Your task to perform on an android device: refresh tabs in the chrome app Image 0: 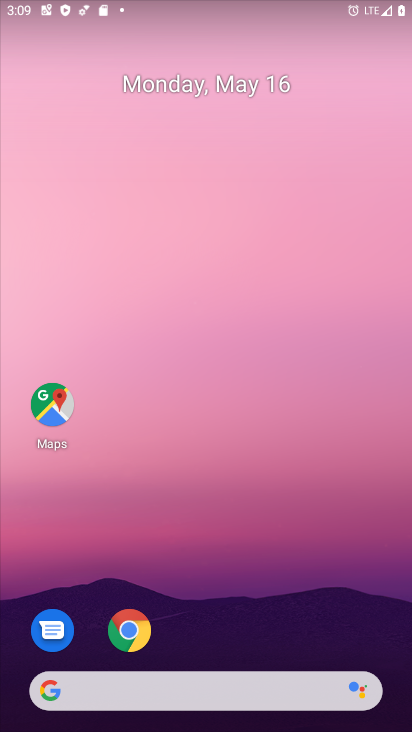
Step 0: click (127, 629)
Your task to perform on an android device: refresh tabs in the chrome app Image 1: 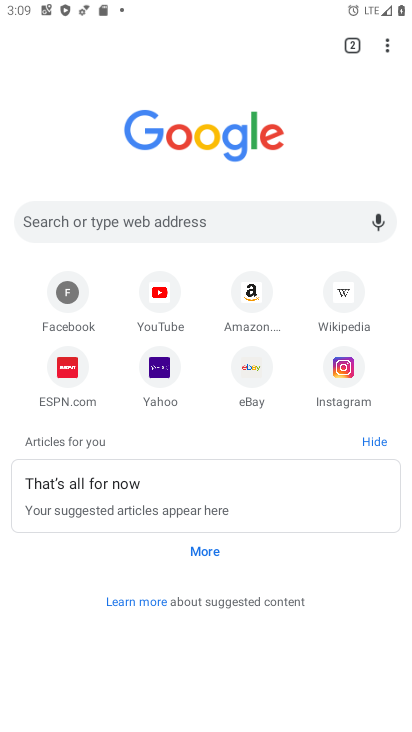
Step 1: click (385, 44)
Your task to perform on an android device: refresh tabs in the chrome app Image 2: 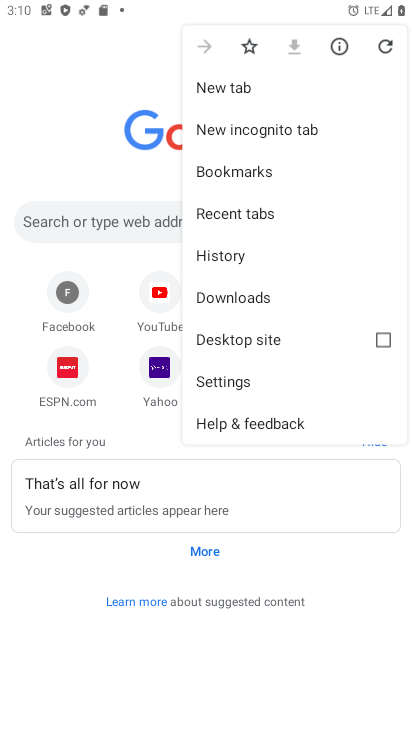
Step 2: click (383, 44)
Your task to perform on an android device: refresh tabs in the chrome app Image 3: 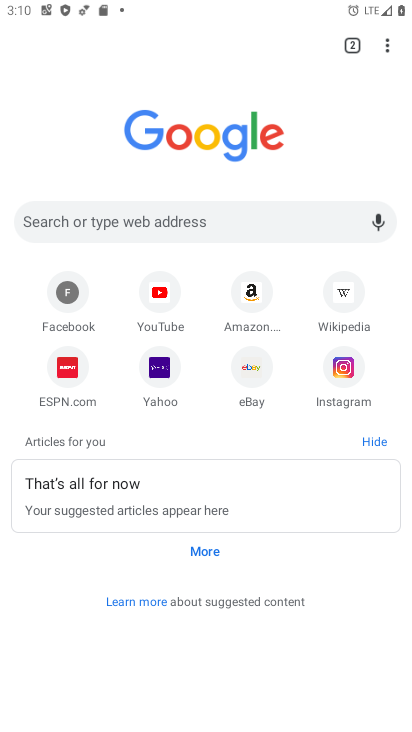
Step 3: task complete